Your task to perform on an android device: read, delete, or share a saved page in the chrome app Image 0: 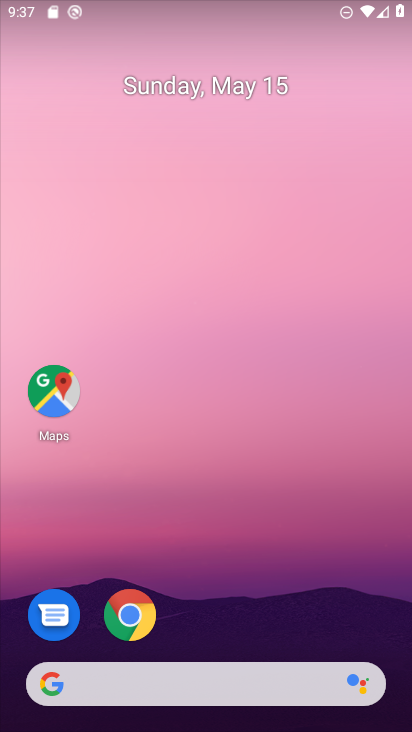
Step 0: click (142, 636)
Your task to perform on an android device: read, delete, or share a saved page in the chrome app Image 1: 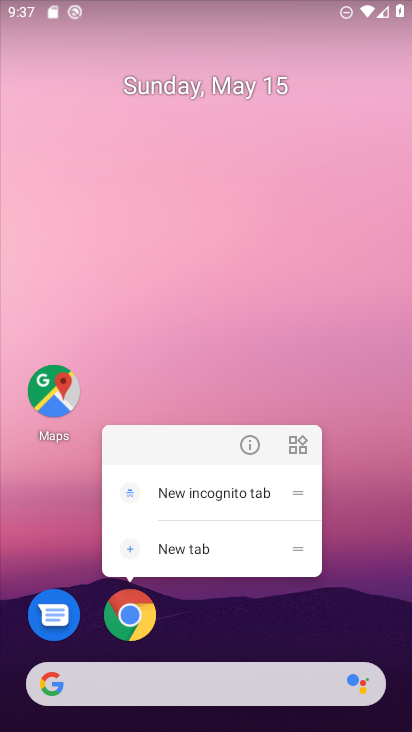
Step 1: click (125, 624)
Your task to perform on an android device: read, delete, or share a saved page in the chrome app Image 2: 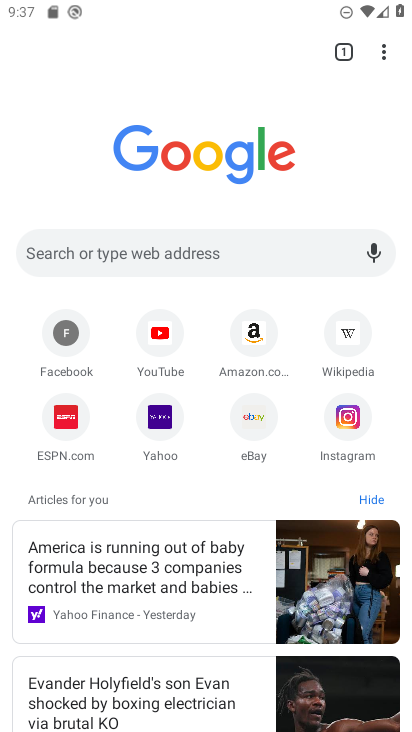
Step 2: drag from (385, 57) to (259, 349)
Your task to perform on an android device: read, delete, or share a saved page in the chrome app Image 3: 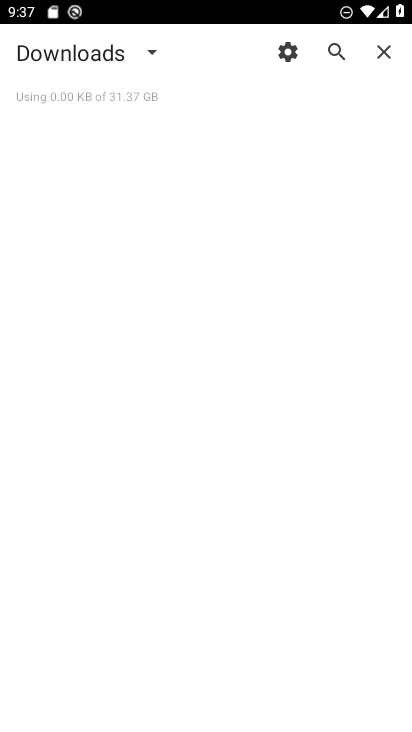
Step 3: click (118, 51)
Your task to perform on an android device: read, delete, or share a saved page in the chrome app Image 4: 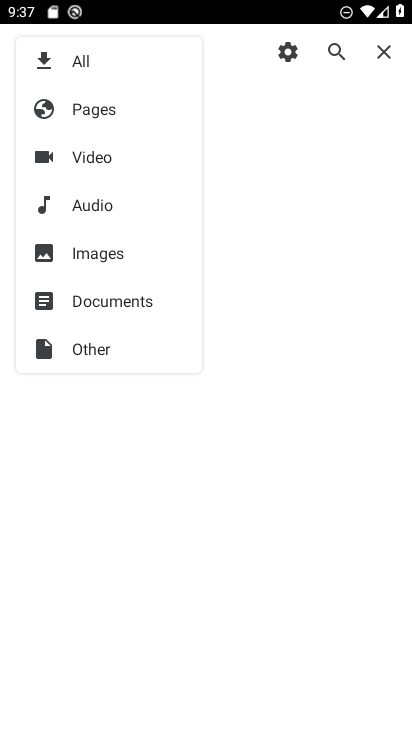
Step 4: click (127, 126)
Your task to perform on an android device: read, delete, or share a saved page in the chrome app Image 5: 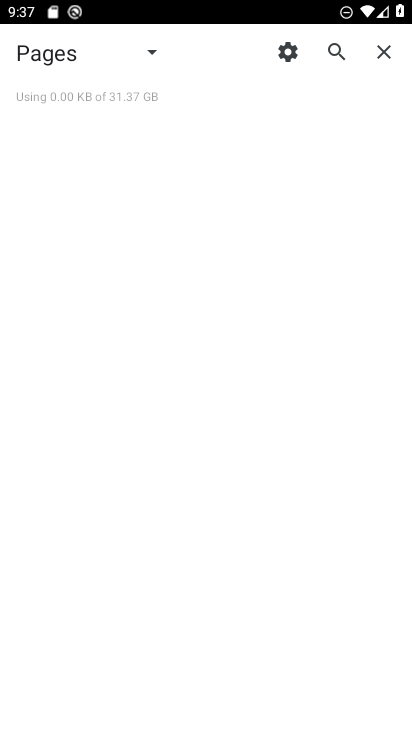
Step 5: task complete